Your task to perform on an android device: turn notification dots off Image 0: 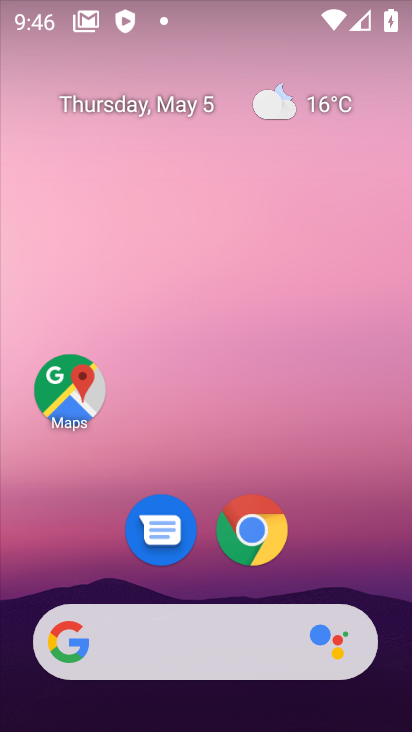
Step 0: drag from (325, 562) to (171, 9)
Your task to perform on an android device: turn notification dots off Image 1: 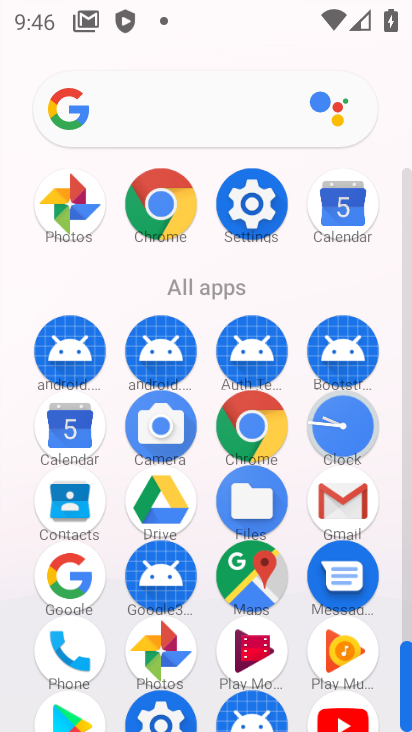
Step 1: click (251, 206)
Your task to perform on an android device: turn notification dots off Image 2: 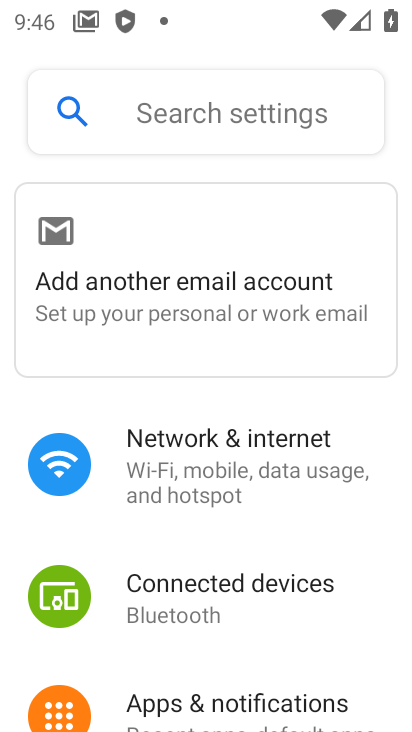
Step 2: drag from (258, 620) to (183, 219)
Your task to perform on an android device: turn notification dots off Image 3: 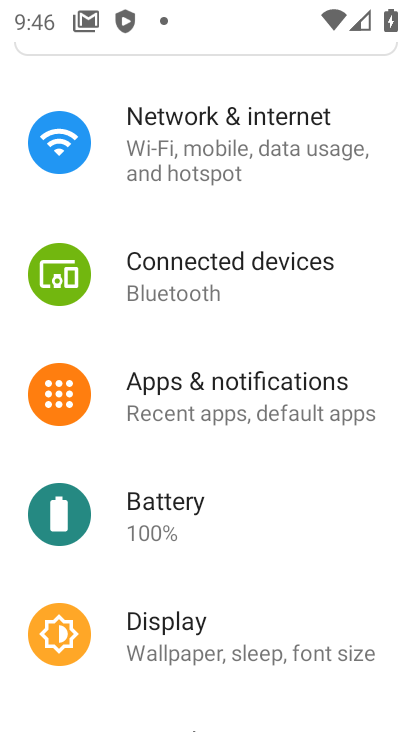
Step 3: click (257, 402)
Your task to perform on an android device: turn notification dots off Image 4: 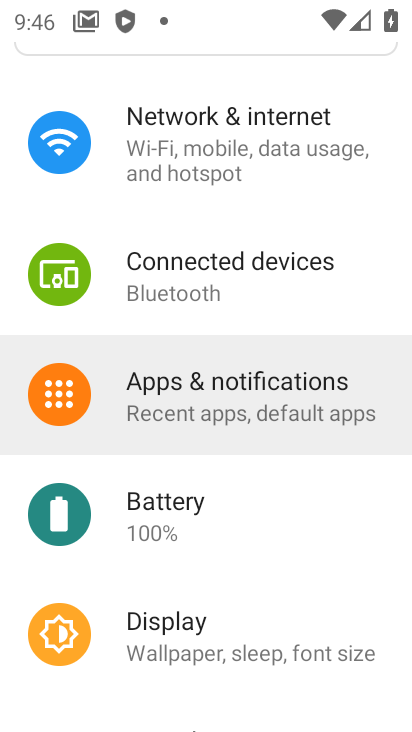
Step 4: click (255, 412)
Your task to perform on an android device: turn notification dots off Image 5: 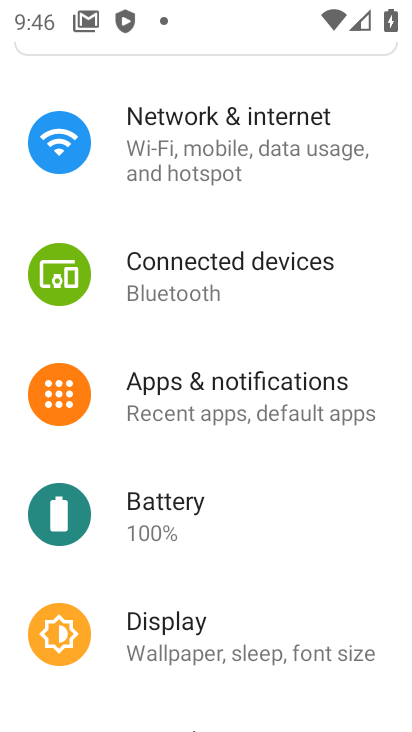
Step 5: click (254, 410)
Your task to perform on an android device: turn notification dots off Image 6: 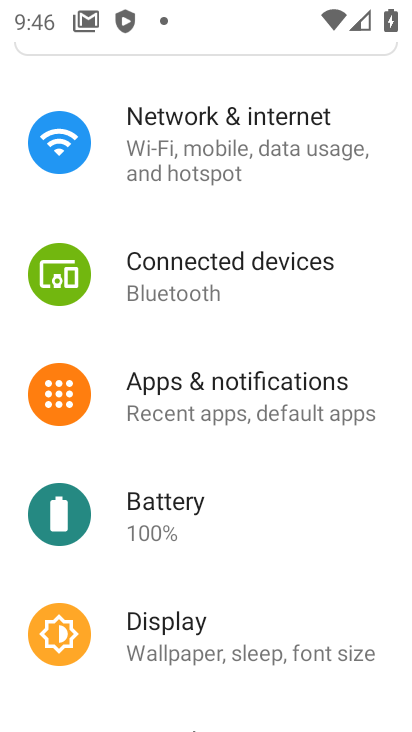
Step 6: click (254, 408)
Your task to perform on an android device: turn notification dots off Image 7: 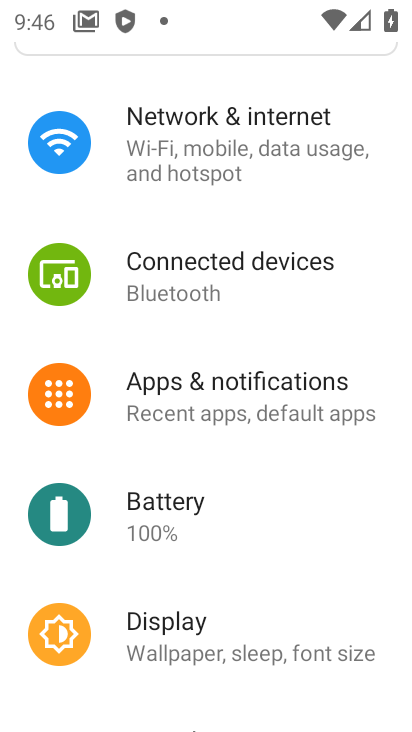
Step 7: click (254, 408)
Your task to perform on an android device: turn notification dots off Image 8: 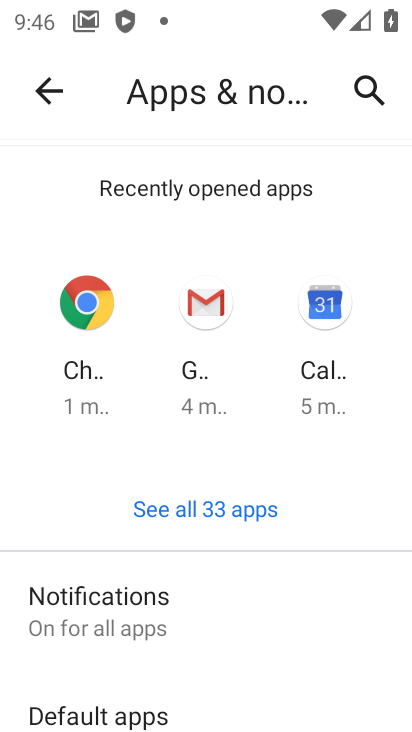
Step 8: click (121, 605)
Your task to perform on an android device: turn notification dots off Image 9: 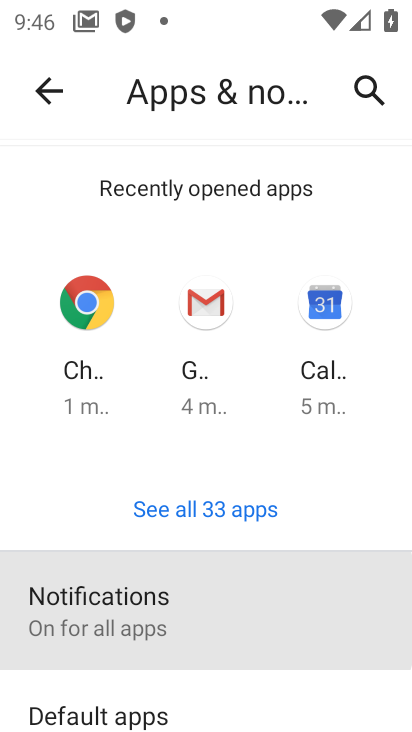
Step 9: click (121, 602)
Your task to perform on an android device: turn notification dots off Image 10: 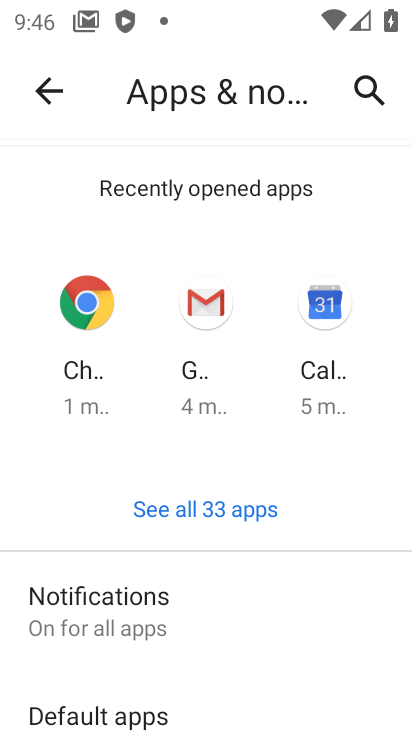
Step 10: click (121, 600)
Your task to perform on an android device: turn notification dots off Image 11: 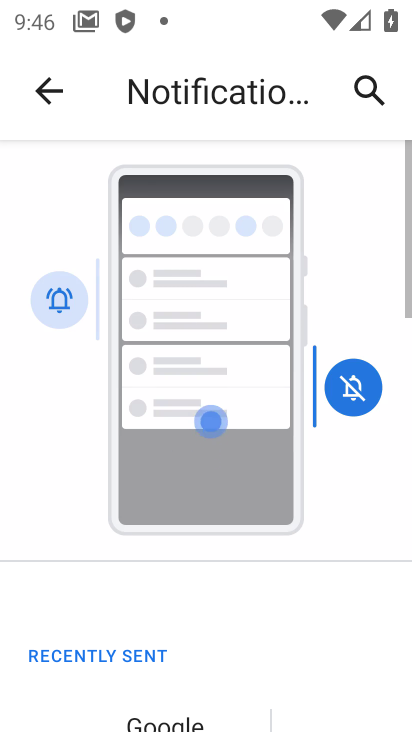
Step 11: click (126, 597)
Your task to perform on an android device: turn notification dots off Image 12: 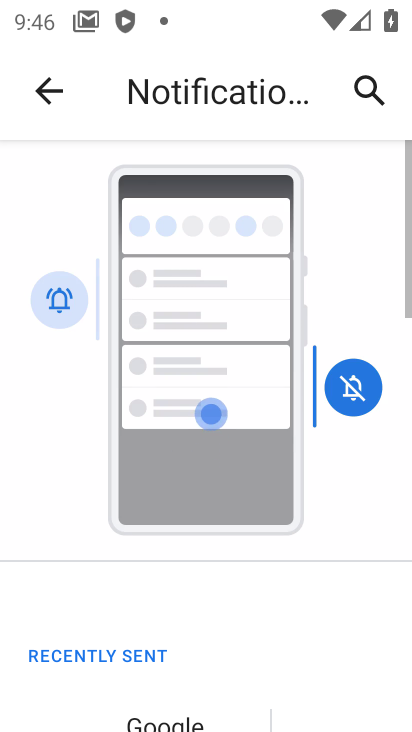
Step 12: click (128, 595)
Your task to perform on an android device: turn notification dots off Image 13: 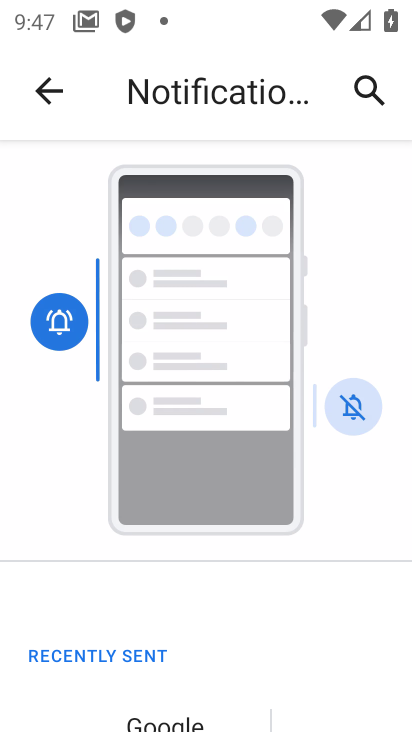
Step 13: drag from (271, 584) to (247, 138)
Your task to perform on an android device: turn notification dots off Image 14: 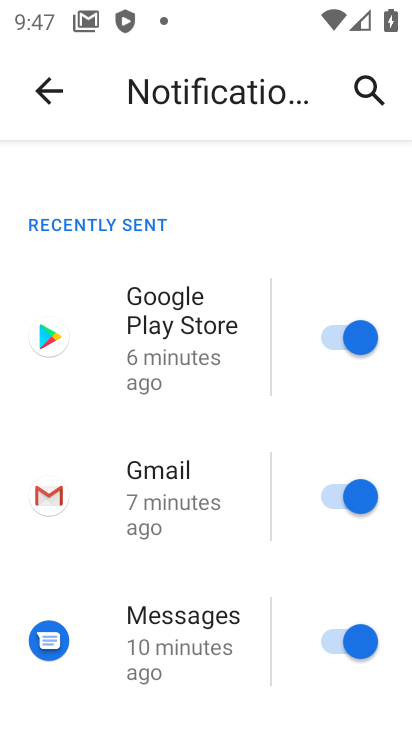
Step 14: drag from (238, 564) to (209, 156)
Your task to perform on an android device: turn notification dots off Image 15: 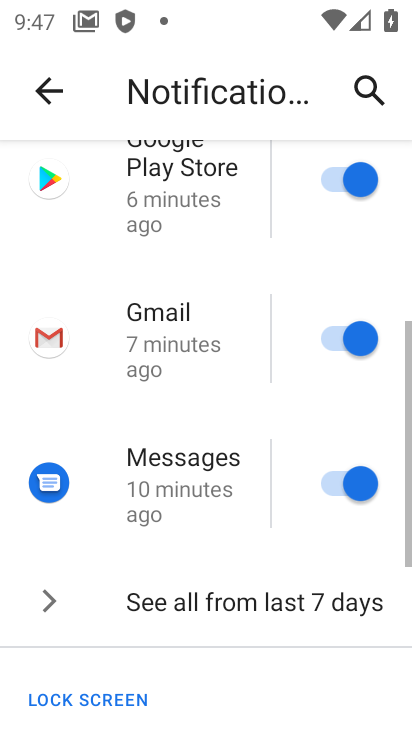
Step 15: drag from (256, 529) to (216, 120)
Your task to perform on an android device: turn notification dots off Image 16: 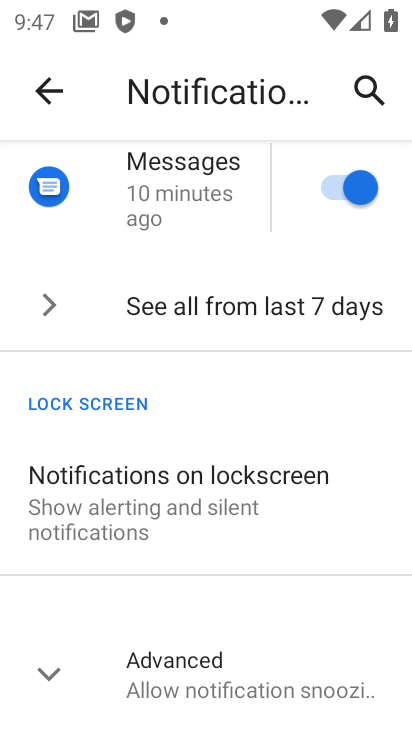
Step 16: drag from (242, 688) to (165, 118)
Your task to perform on an android device: turn notification dots off Image 17: 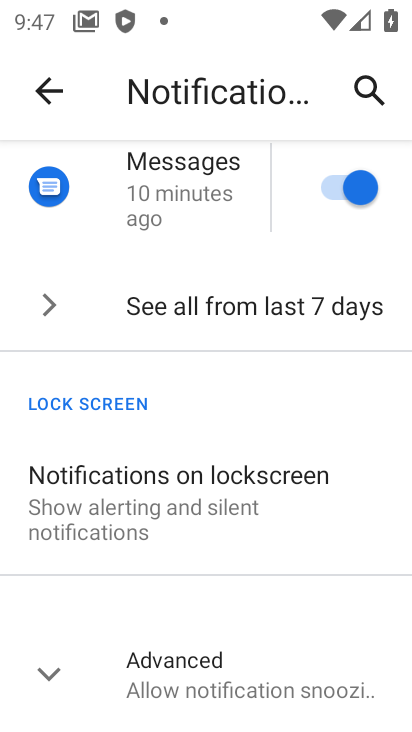
Step 17: click (184, 672)
Your task to perform on an android device: turn notification dots off Image 18: 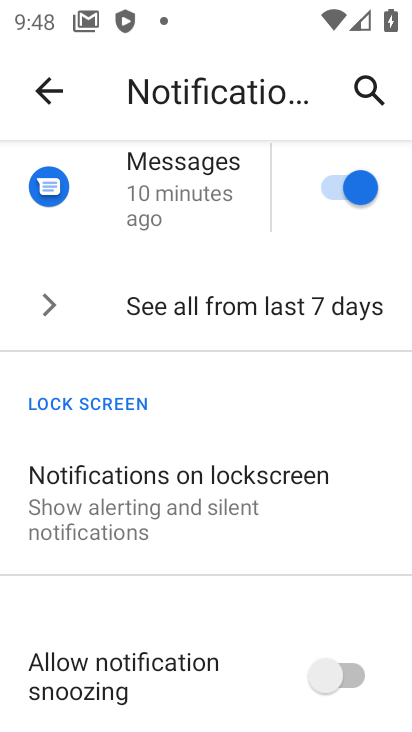
Step 18: drag from (204, 631) to (170, 379)
Your task to perform on an android device: turn notification dots off Image 19: 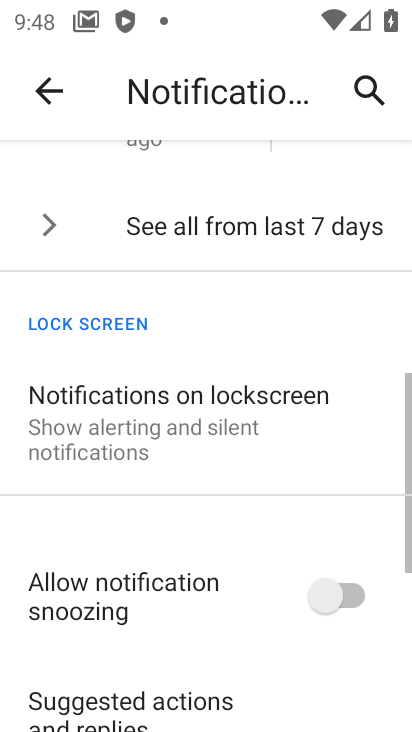
Step 19: drag from (230, 574) to (222, 256)
Your task to perform on an android device: turn notification dots off Image 20: 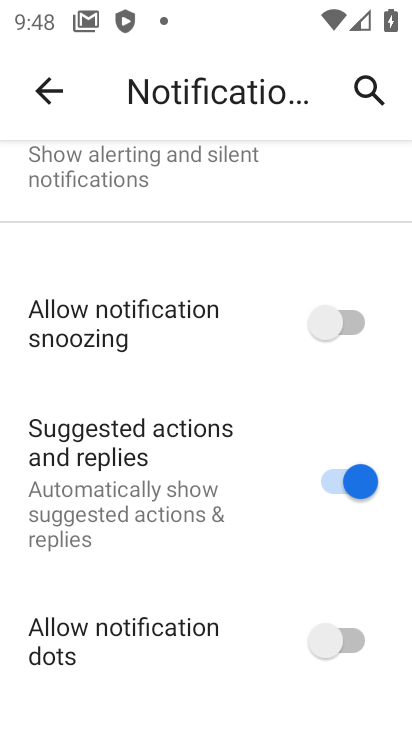
Step 20: drag from (229, 642) to (177, 322)
Your task to perform on an android device: turn notification dots off Image 21: 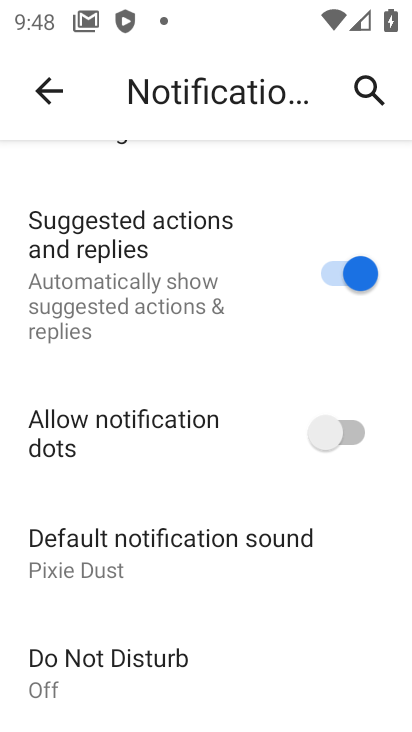
Step 21: click (325, 428)
Your task to perform on an android device: turn notification dots off Image 22: 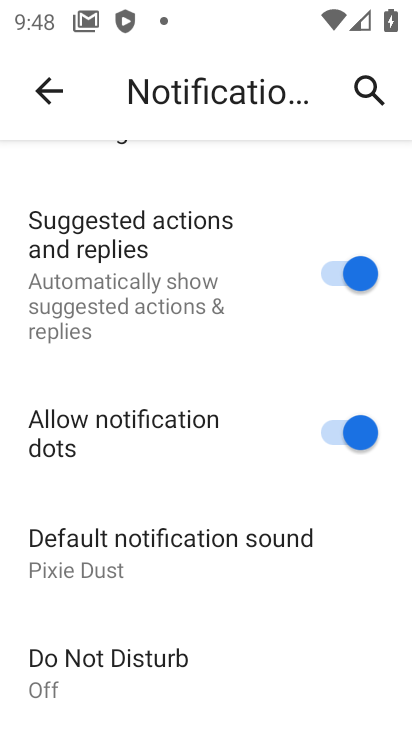
Step 22: click (342, 666)
Your task to perform on an android device: turn notification dots off Image 23: 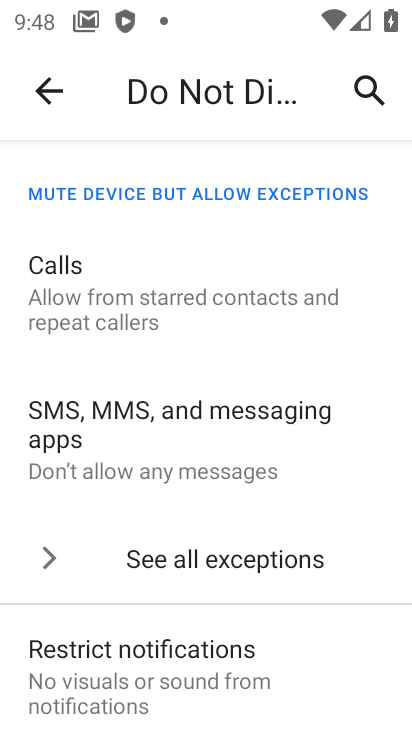
Step 23: click (38, 85)
Your task to perform on an android device: turn notification dots off Image 24: 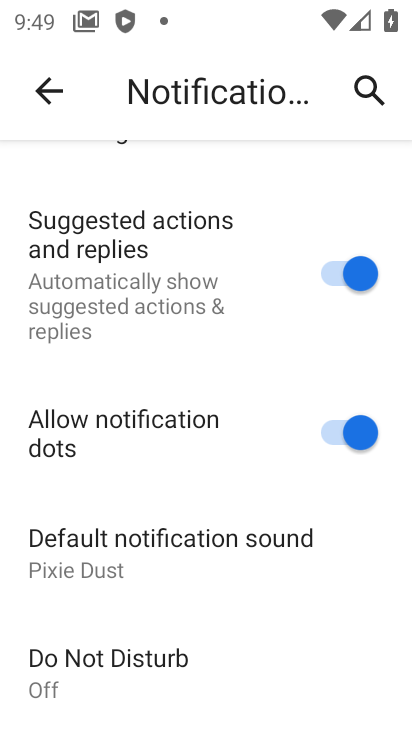
Step 24: click (356, 434)
Your task to perform on an android device: turn notification dots off Image 25: 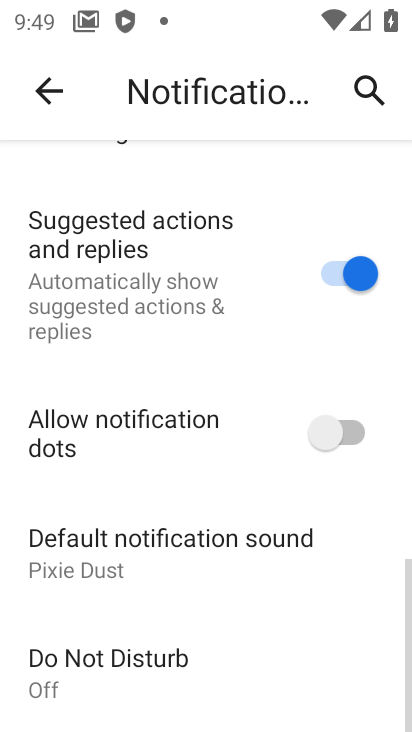
Step 25: task complete